Your task to perform on an android device: What's the weather going to be tomorrow? Image 0: 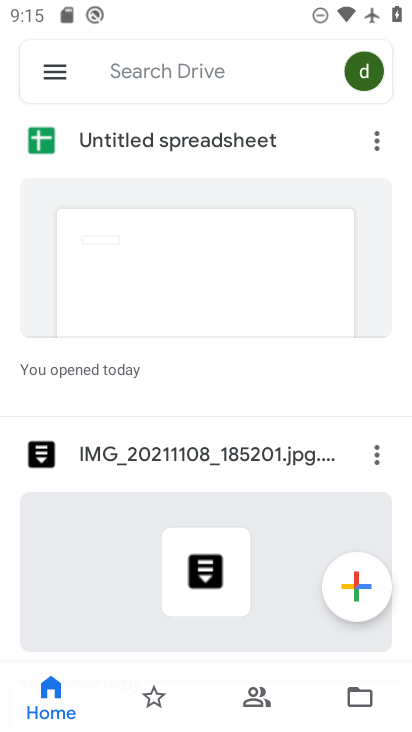
Step 0: press home button
Your task to perform on an android device: What's the weather going to be tomorrow? Image 1: 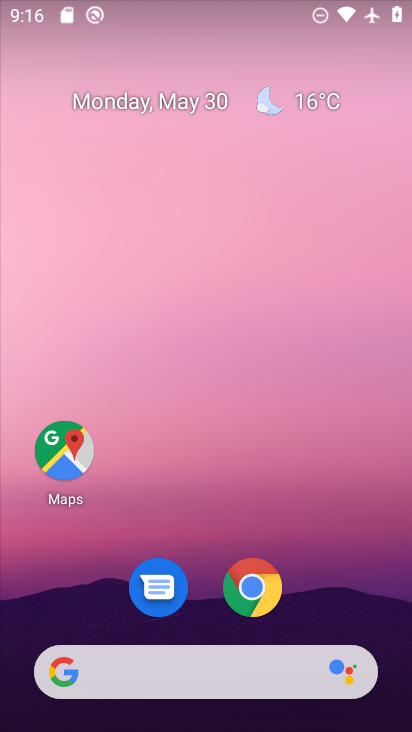
Step 1: click (297, 103)
Your task to perform on an android device: What's the weather going to be tomorrow? Image 2: 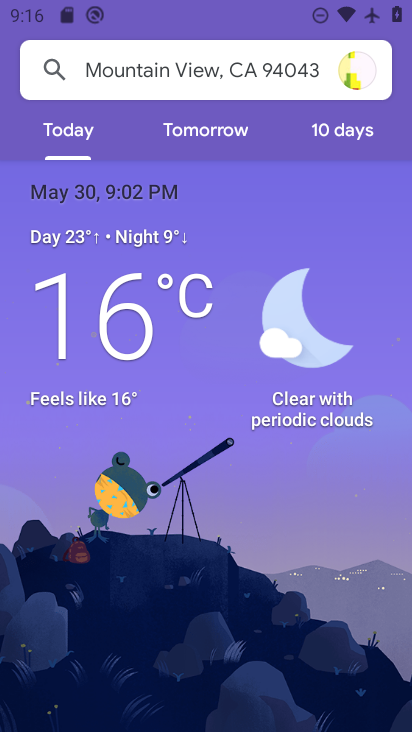
Step 2: task complete